Your task to perform on an android device: Search for Italian restaurants on Maps Image 0: 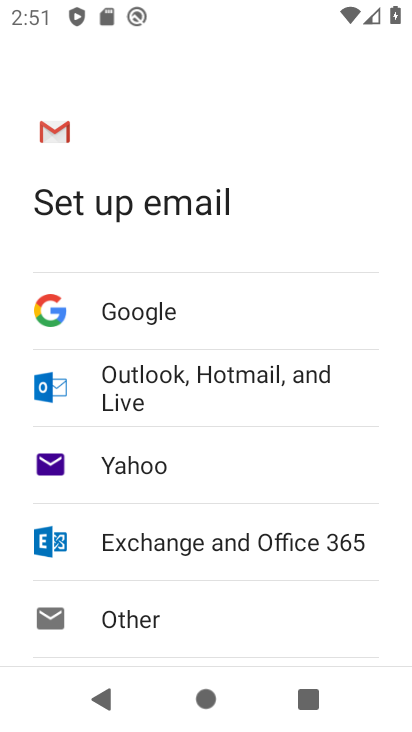
Step 0: press home button
Your task to perform on an android device: Search for Italian restaurants on Maps Image 1: 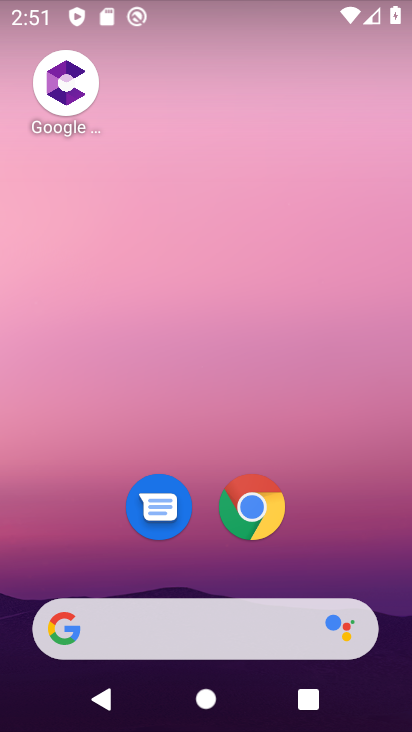
Step 1: drag from (334, 538) to (241, 172)
Your task to perform on an android device: Search for Italian restaurants on Maps Image 2: 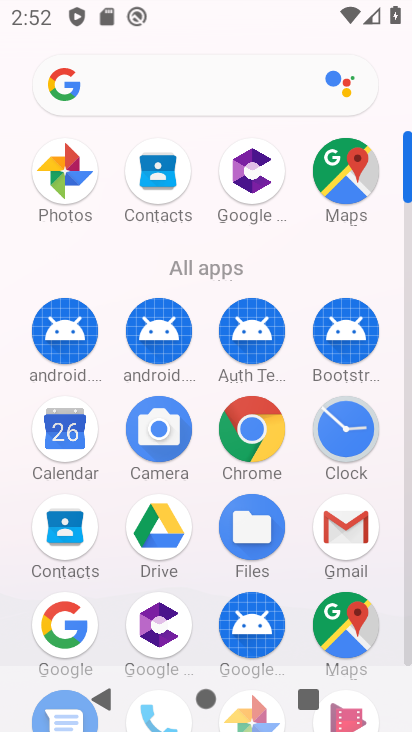
Step 2: click (350, 175)
Your task to perform on an android device: Search for Italian restaurants on Maps Image 3: 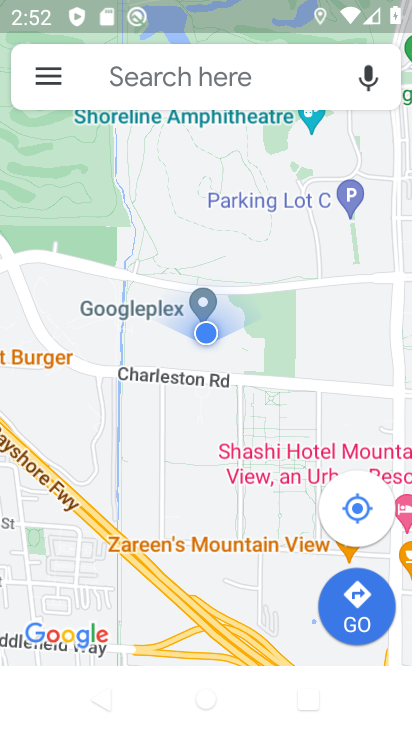
Step 3: click (236, 62)
Your task to perform on an android device: Search for Italian restaurants on Maps Image 4: 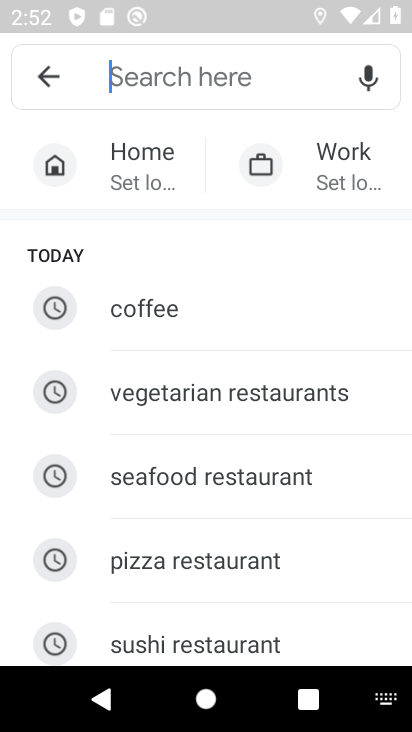
Step 4: type "Italian restaurants"
Your task to perform on an android device: Search for Italian restaurants on Maps Image 5: 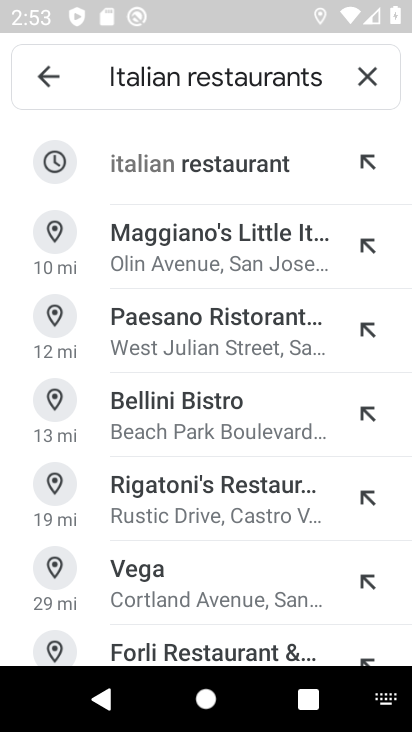
Step 5: click (199, 169)
Your task to perform on an android device: Search for Italian restaurants on Maps Image 6: 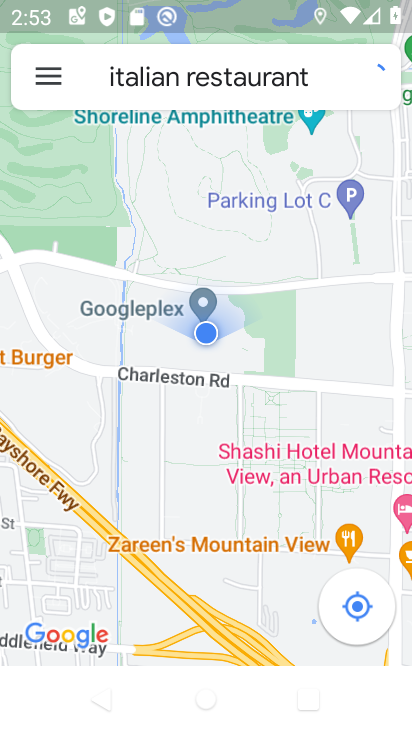
Step 6: task complete